Your task to perform on an android device: open app "Mercado Libre" (install if not already installed) and go to login screen Image 0: 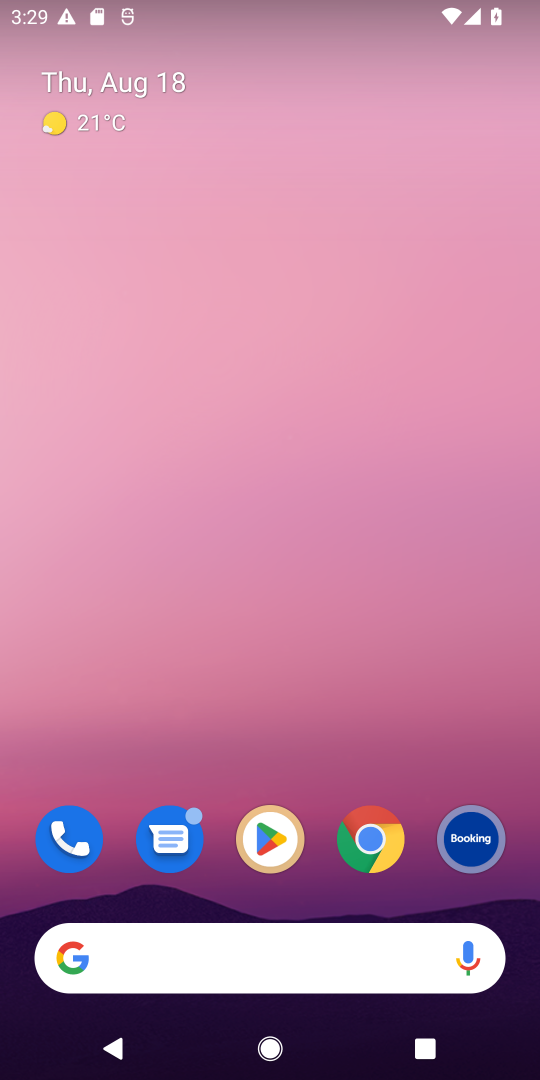
Step 0: click (270, 830)
Your task to perform on an android device: open app "Mercado Libre" (install if not already installed) and go to login screen Image 1: 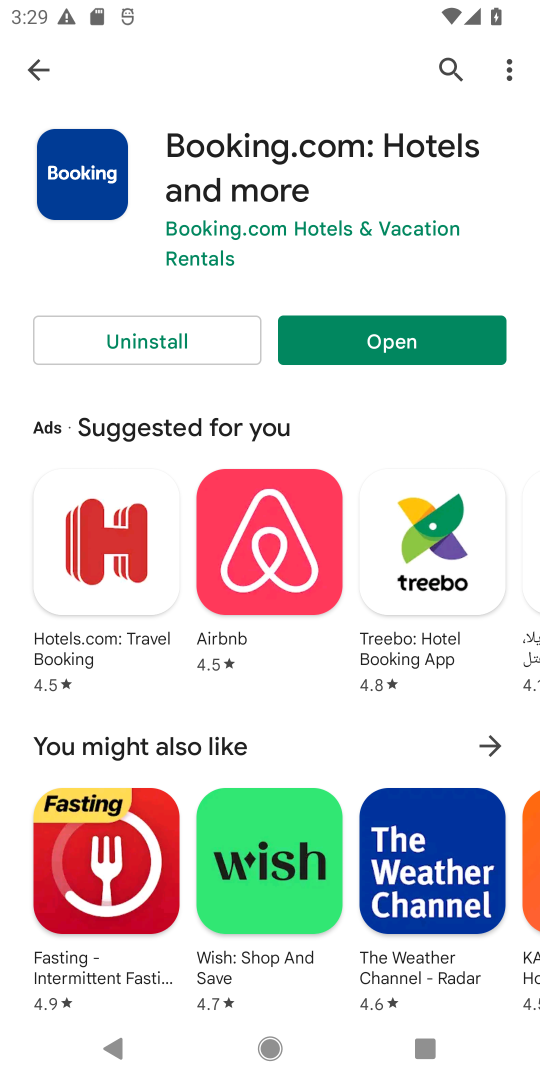
Step 1: click (37, 65)
Your task to perform on an android device: open app "Mercado Libre" (install if not already installed) and go to login screen Image 2: 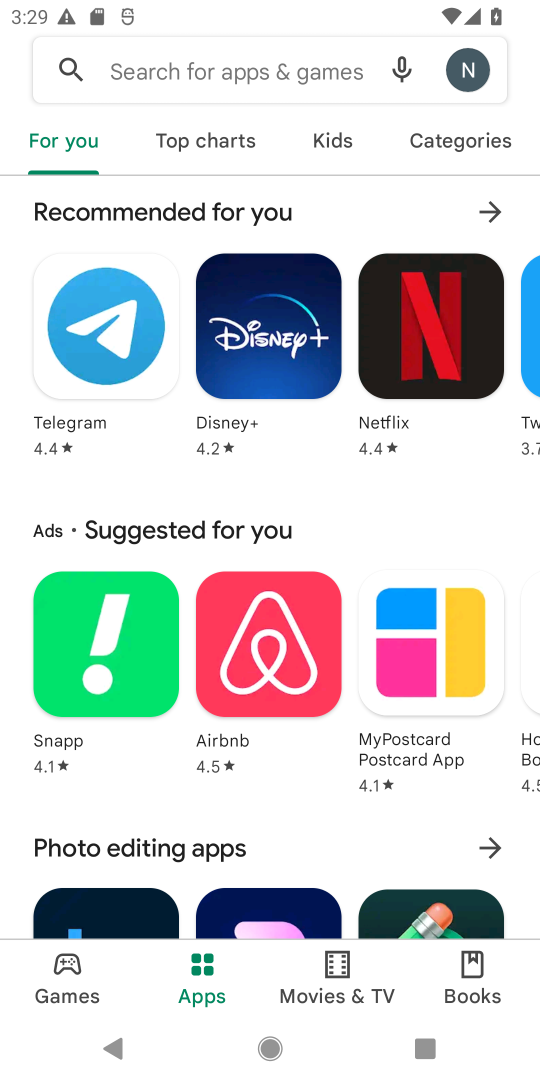
Step 2: click (120, 62)
Your task to perform on an android device: open app "Mercado Libre" (install if not already installed) and go to login screen Image 3: 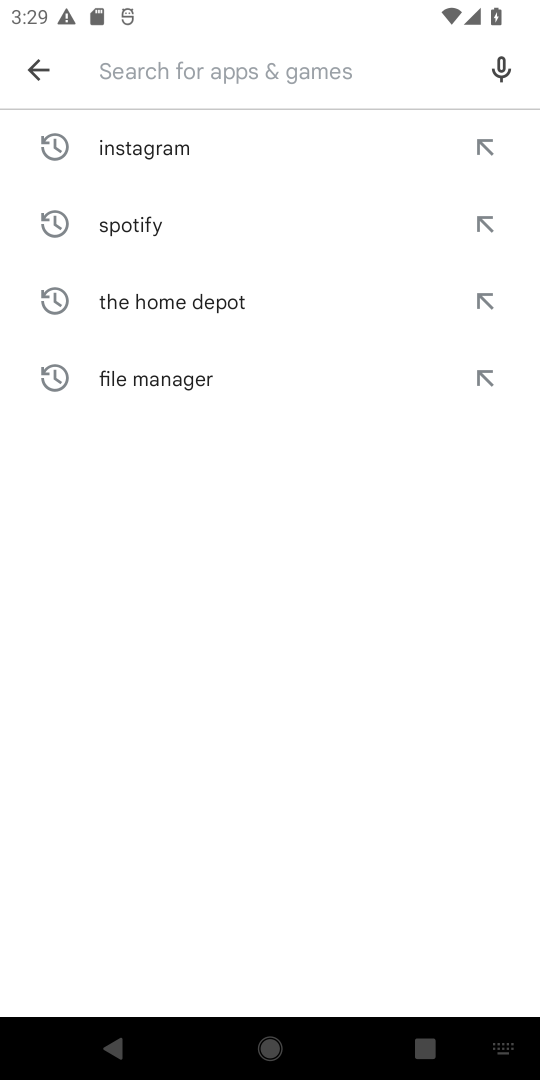
Step 3: type "Mercado Libre"
Your task to perform on an android device: open app "Mercado Libre" (install if not already installed) and go to login screen Image 4: 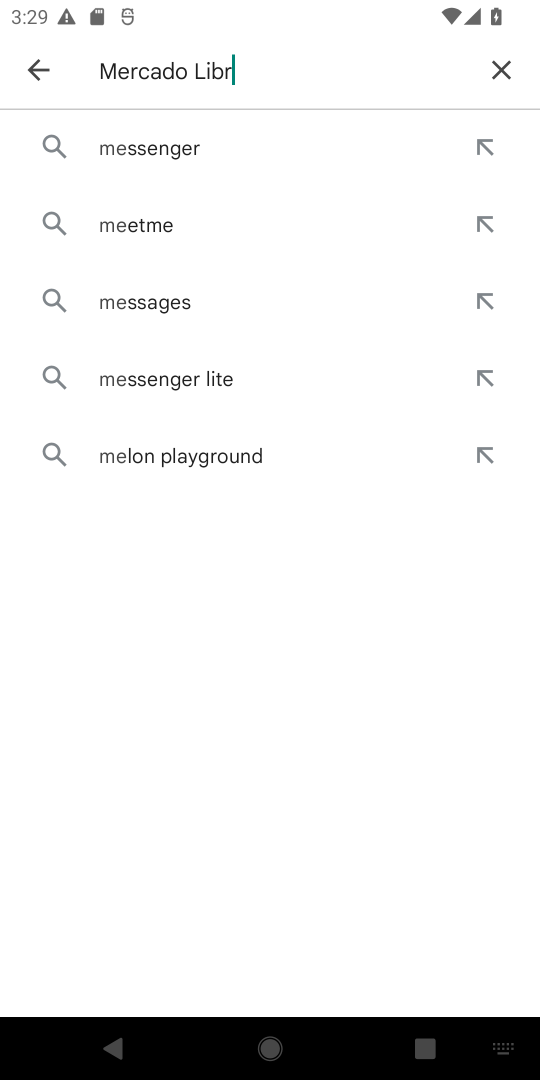
Step 4: type ""
Your task to perform on an android device: open app "Mercado Libre" (install if not already installed) and go to login screen Image 5: 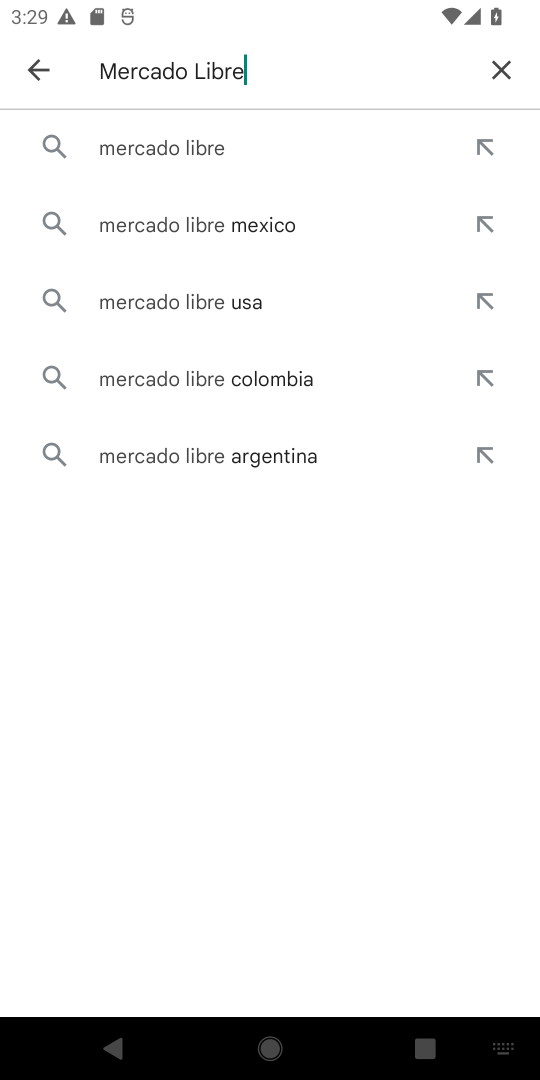
Step 5: click (164, 144)
Your task to perform on an android device: open app "Mercado Libre" (install if not already installed) and go to login screen Image 6: 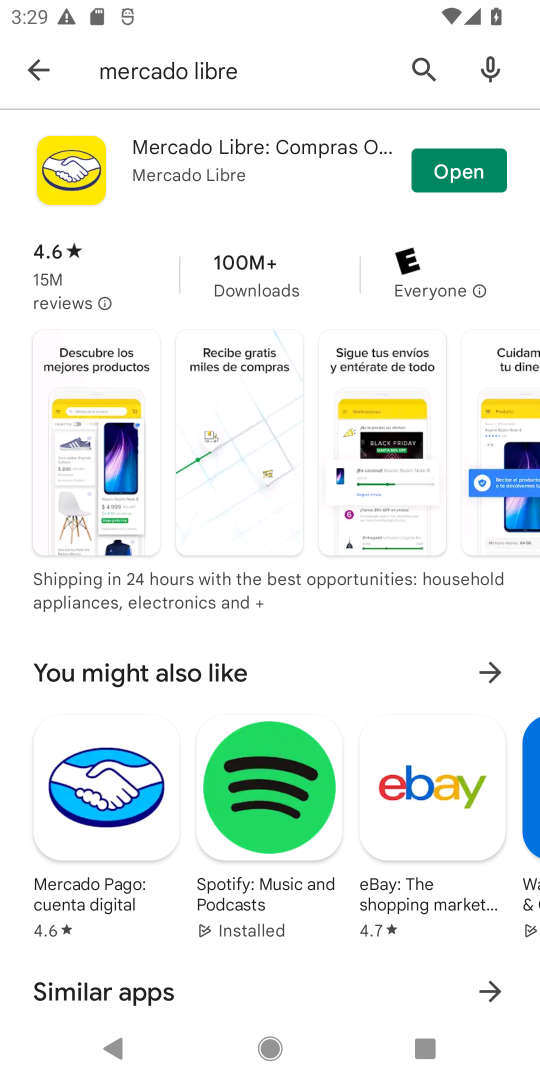
Step 6: click (455, 181)
Your task to perform on an android device: open app "Mercado Libre" (install if not already installed) and go to login screen Image 7: 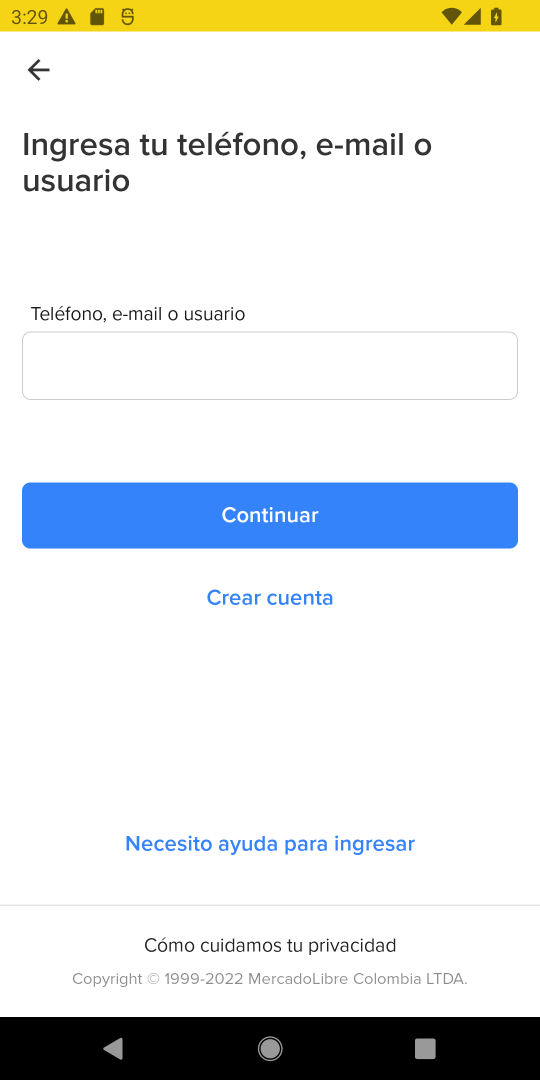
Step 7: task complete